Your task to perform on an android device: Open settings on Google Maps Image 0: 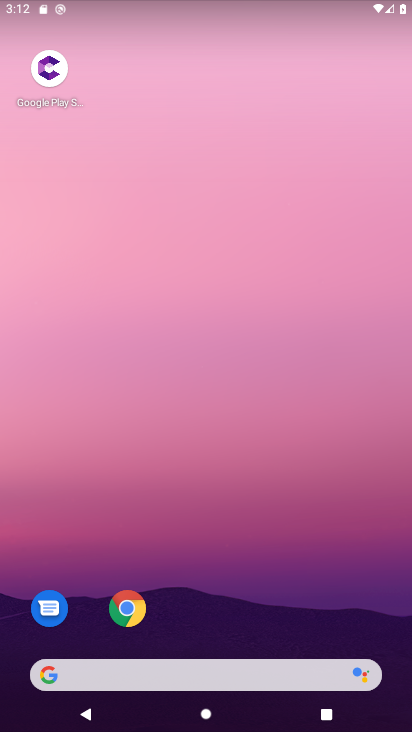
Step 0: drag from (150, 642) to (180, 280)
Your task to perform on an android device: Open settings on Google Maps Image 1: 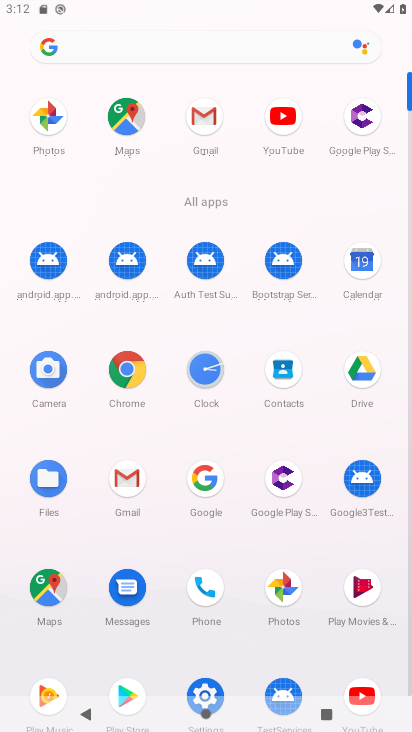
Step 1: click (50, 594)
Your task to perform on an android device: Open settings on Google Maps Image 2: 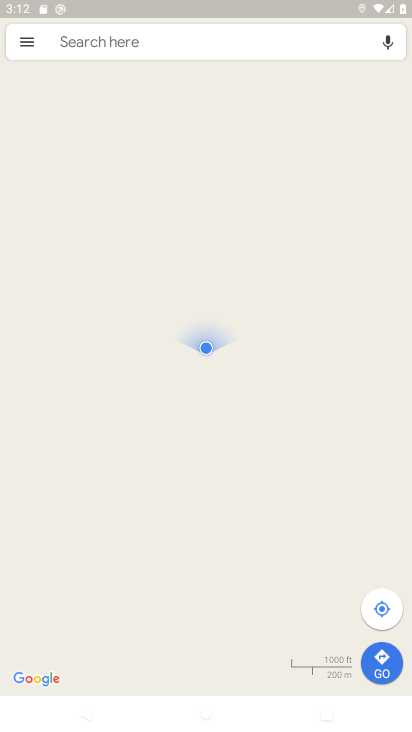
Step 2: click (20, 43)
Your task to perform on an android device: Open settings on Google Maps Image 3: 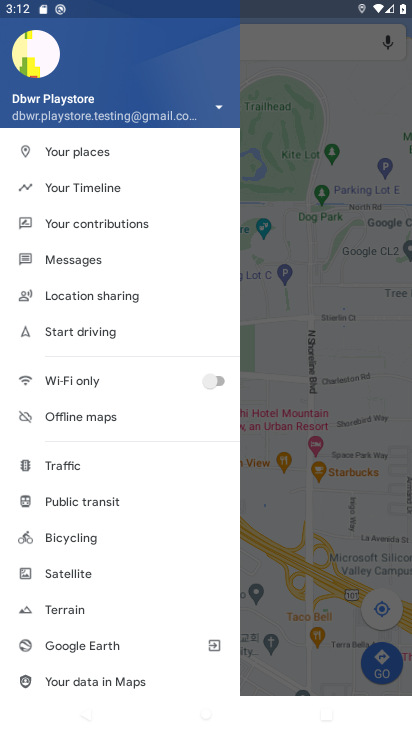
Step 3: drag from (74, 683) to (85, 321)
Your task to perform on an android device: Open settings on Google Maps Image 4: 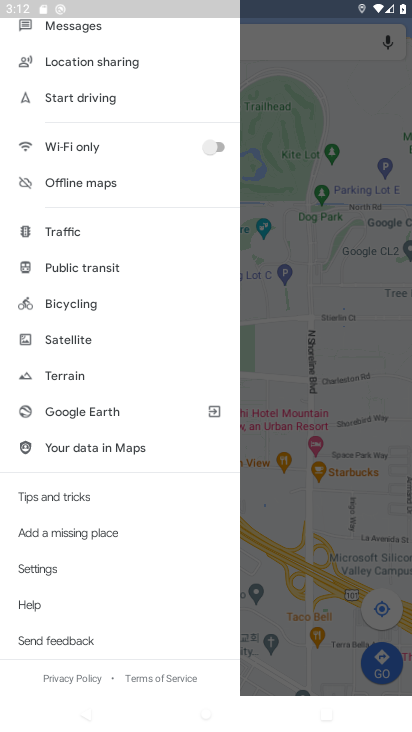
Step 4: click (37, 572)
Your task to perform on an android device: Open settings on Google Maps Image 5: 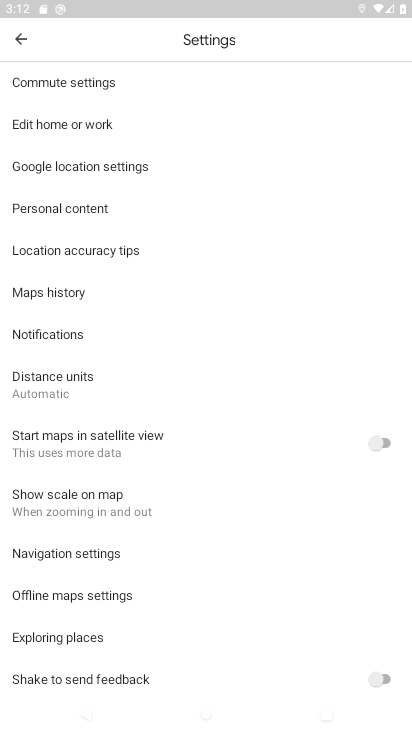
Step 5: task complete